Your task to perform on an android device: turn on notifications settings in the gmail app Image 0: 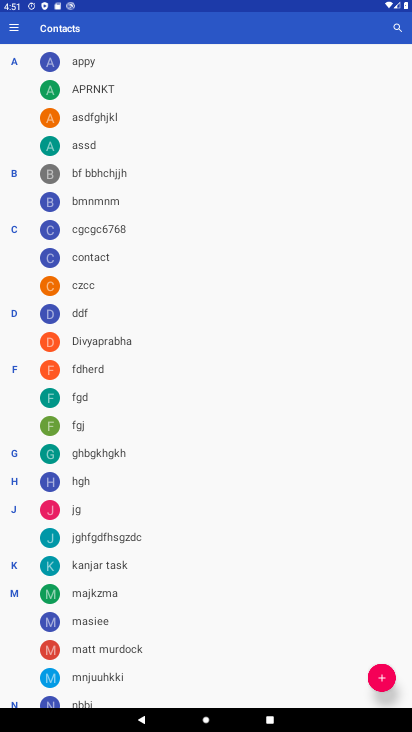
Step 0: press home button
Your task to perform on an android device: turn on notifications settings in the gmail app Image 1: 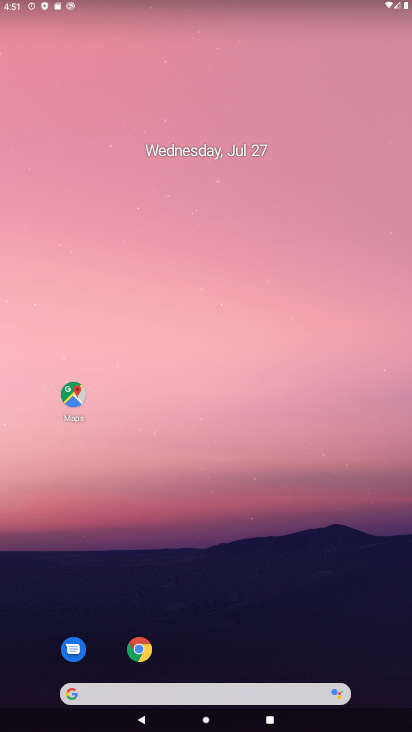
Step 1: drag from (164, 697) to (231, 44)
Your task to perform on an android device: turn on notifications settings in the gmail app Image 2: 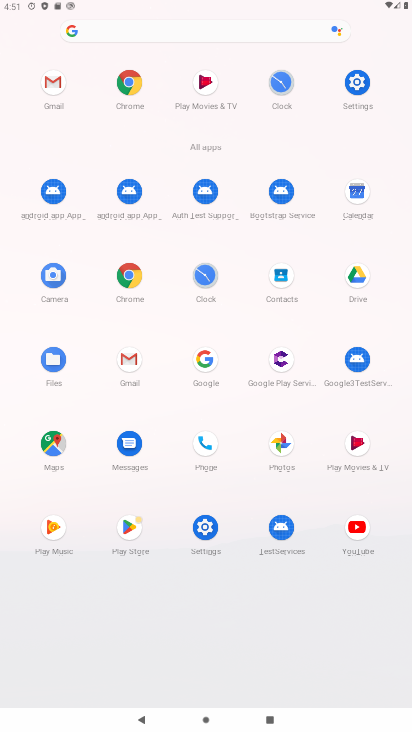
Step 2: click (128, 356)
Your task to perform on an android device: turn on notifications settings in the gmail app Image 3: 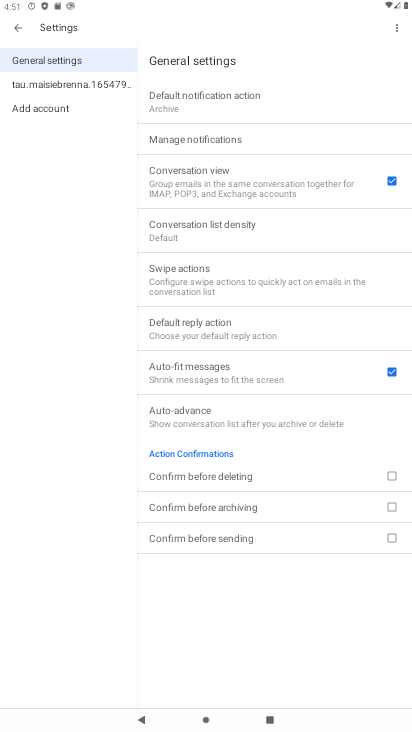
Step 3: click (108, 82)
Your task to perform on an android device: turn on notifications settings in the gmail app Image 4: 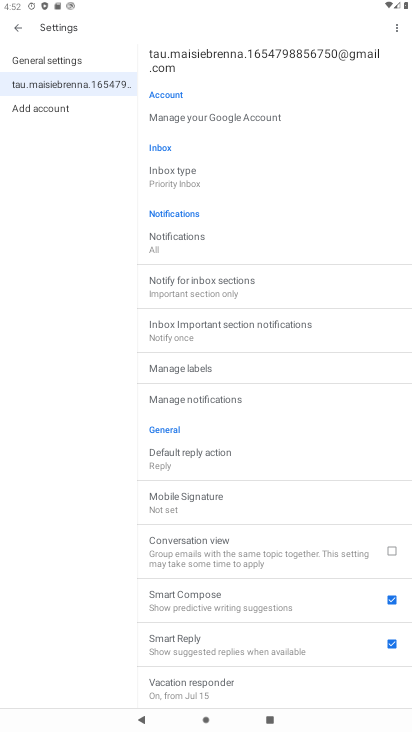
Step 4: click (210, 399)
Your task to perform on an android device: turn on notifications settings in the gmail app Image 5: 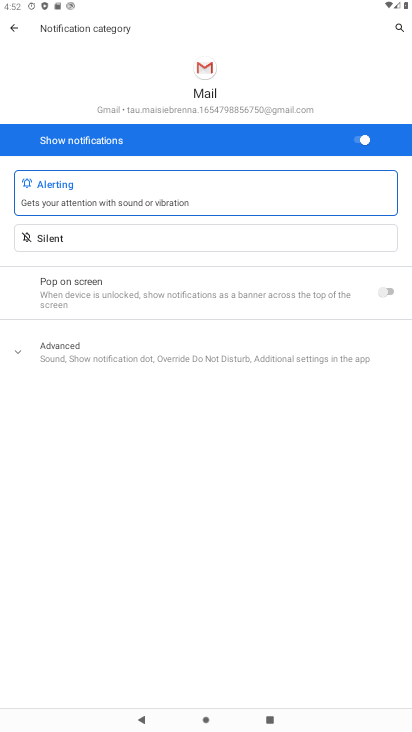
Step 5: task complete